Your task to perform on an android device: Open Youtube and go to the subscriptions tab Image 0: 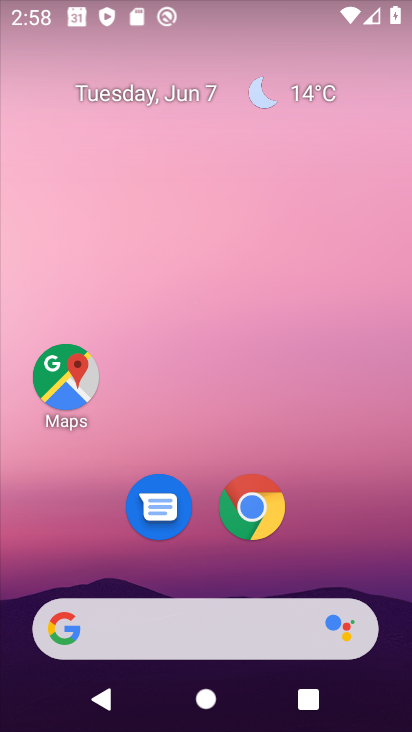
Step 0: drag from (360, 523) to (338, 115)
Your task to perform on an android device: Open Youtube and go to the subscriptions tab Image 1: 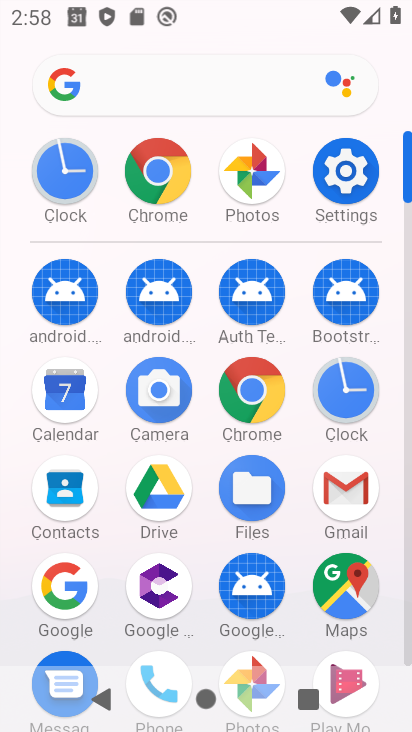
Step 1: drag from (295, 625) to (308, 253)
Your task to perform on an android device: Open Youtube and go to the subscriptions tab Image 2: 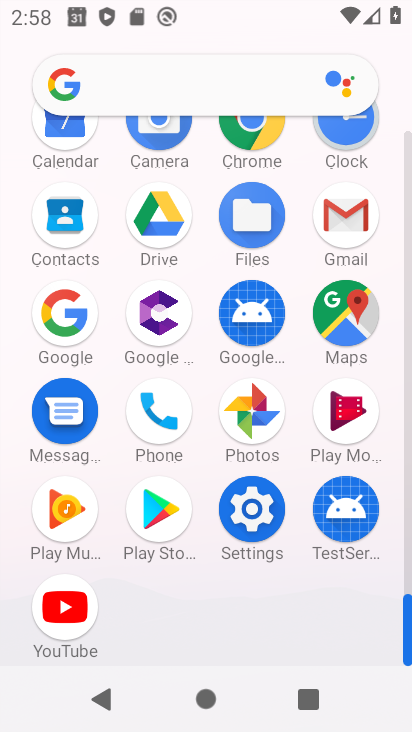
Step 2: click (72, 612)
Your task to perform on an android device: Open Youtube and go to the subscriptions tab Image 3: 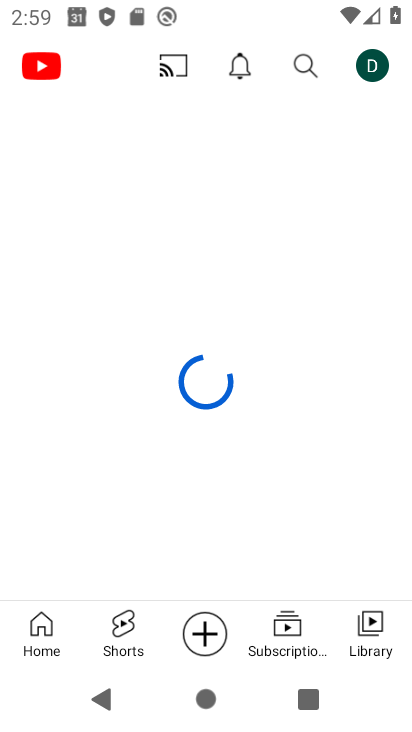
Step 3: click (298, 636)
Your task to perform on an android device: Open Youtube and go to the subscriptions tab Image 4: 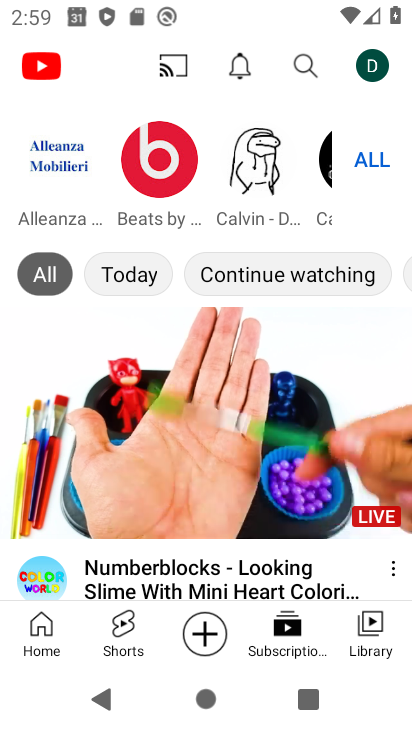
Step 4: task complete